Your task to perform on an android device: Open the stopwatch Image 0: 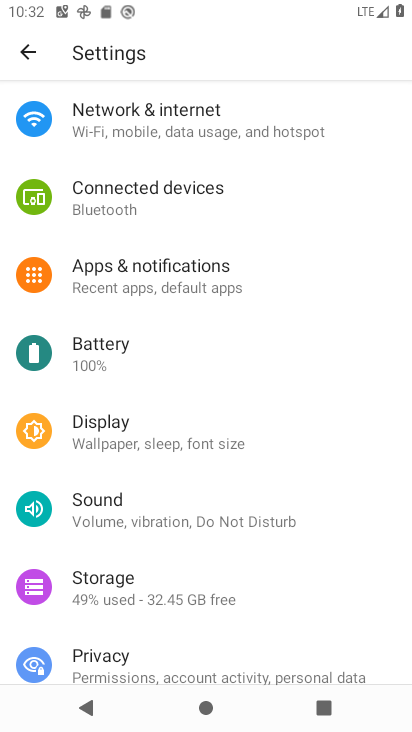
Step 0: press home button
Your task to perform on an android device: Open the stopwatch Image 1: 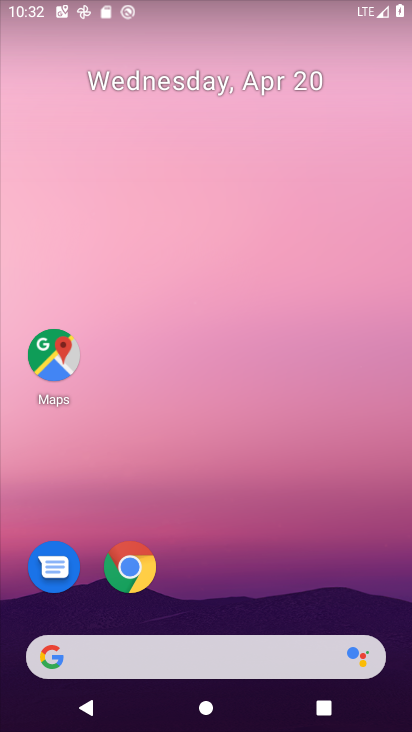
Step 1: drag from (331, 578) to (303, 235)
Your task to perform on an android device: Open the stopwatch Image 2: 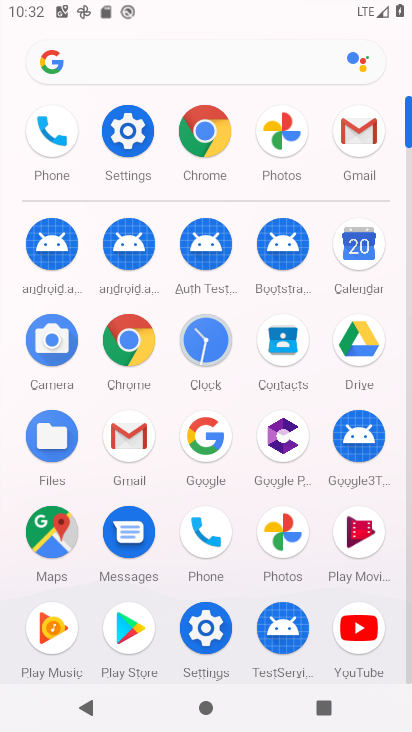
Step 2: click (194, 340)
Your task to perform on an android device: Open the stopwatch Image 3: 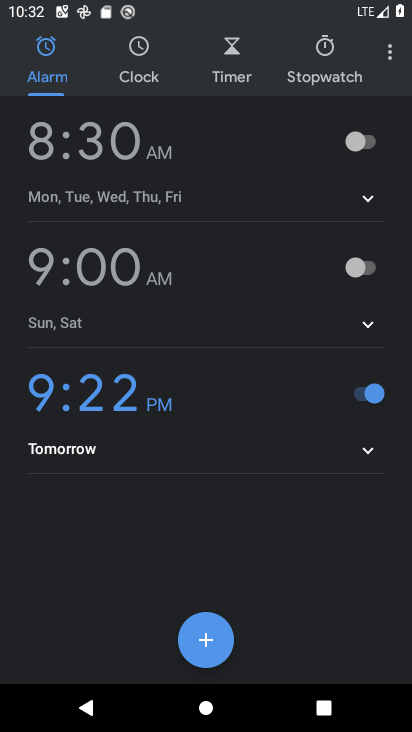
Step 3: click (321, 60)
Your task to perform on an android device: Open the stopwatch Image 4: 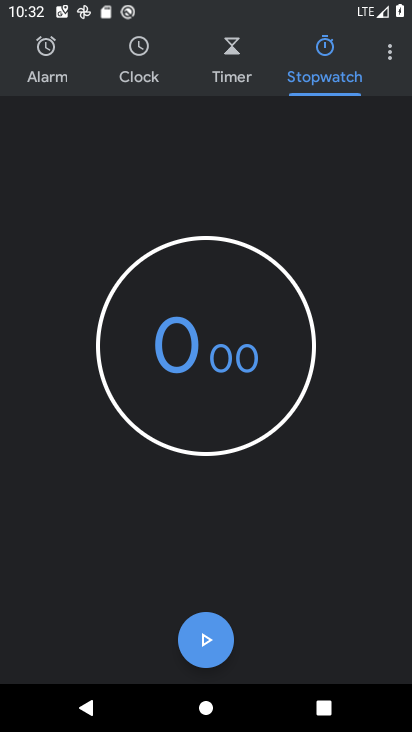
Step 4: task complete